Your task to perform on an android device: Open my contact list Image 0: 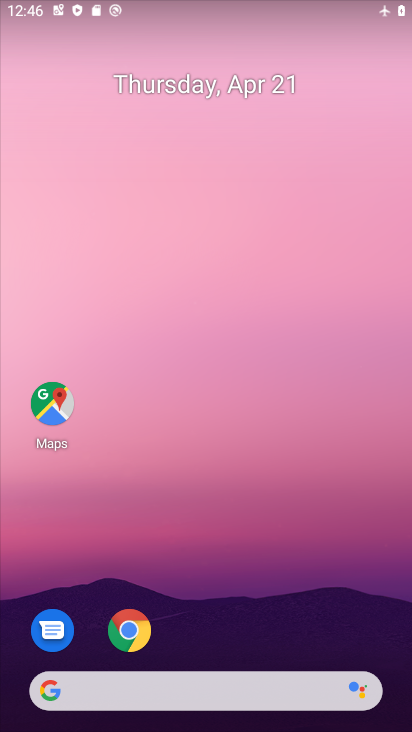
Step 0: drag from (217, 587) to (86, 39)
Your task to perform on an android device: Open my contact list Image 1: 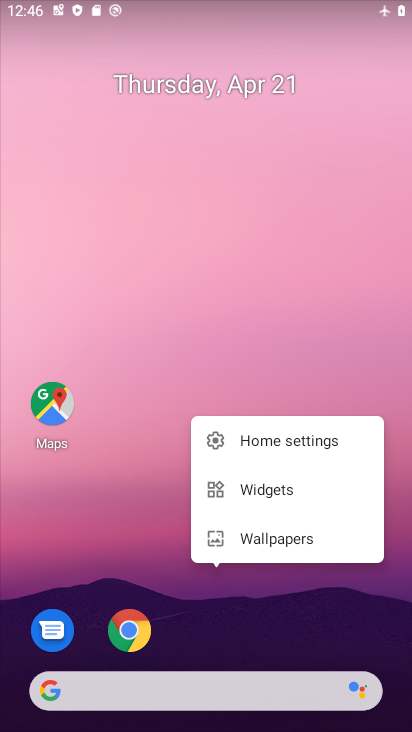
Step 1: click (86, 521)
Your task to perform on an android device: Open my contact list Image 2: 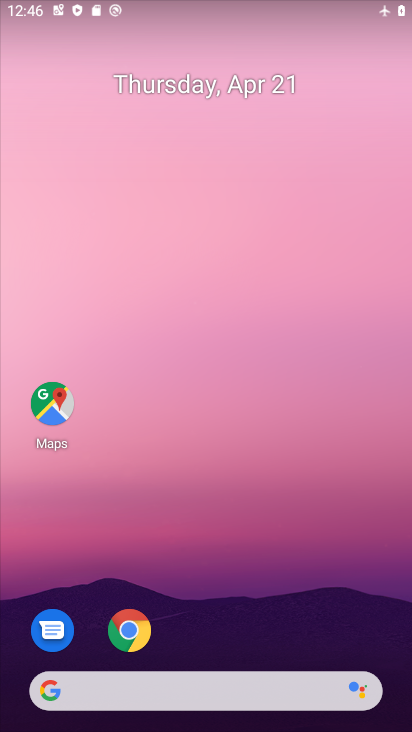
Step 2: drag from (190, 590) to (248, 232)
Your task to perform on an android device: Open my contact list Image 3: 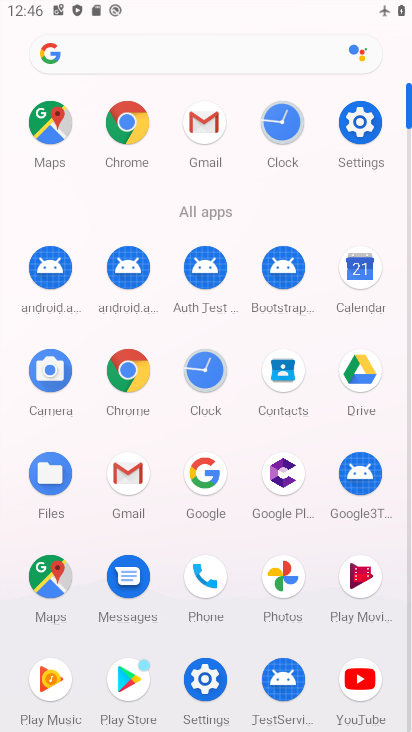
Step 3: click (292, 396)
Your task to perform on an android device: Open my contact list Image 4: 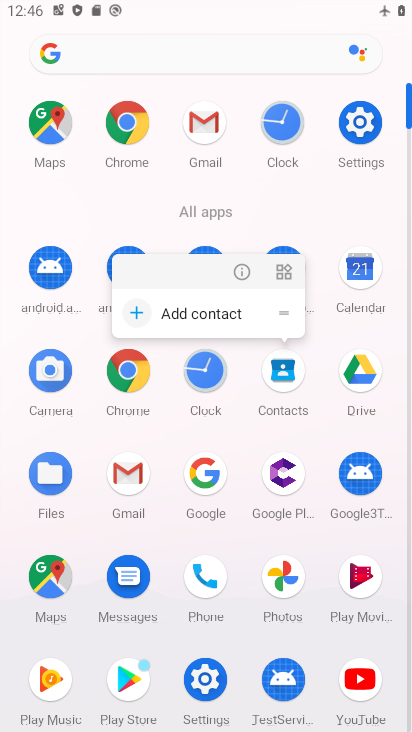
Step 4: click (292, 396)
Your task to perform on an android device: Open my contact list Image 5: 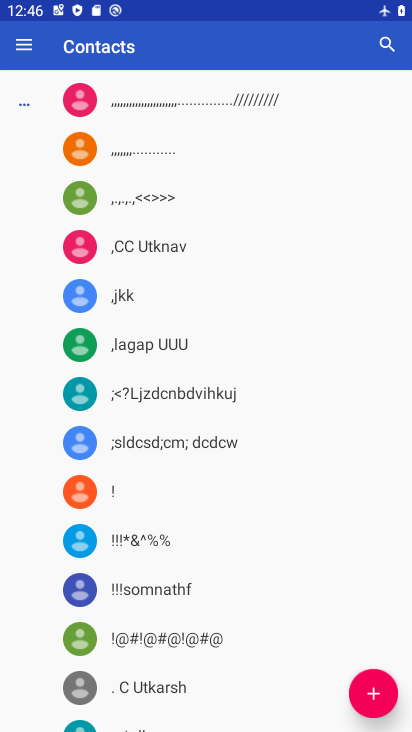
Step 5: click (13, 39)
Your task to perform on an android device: Open my contact list Image 6: 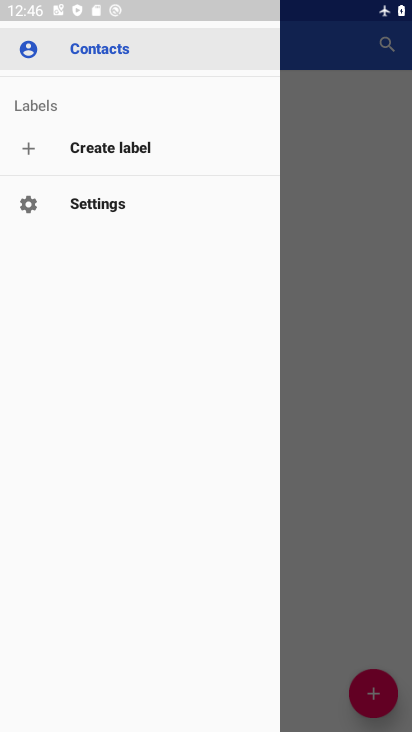
Step 6: click (332, 292)
Your task to perform on an android device: Open my contact list Image 7: 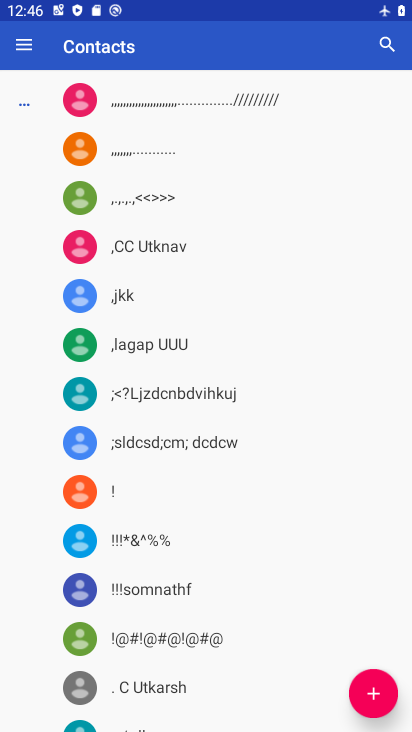
Step 7: task complete